Your task to perform on an android device: Open Chrome and go to the settings page Image 0: 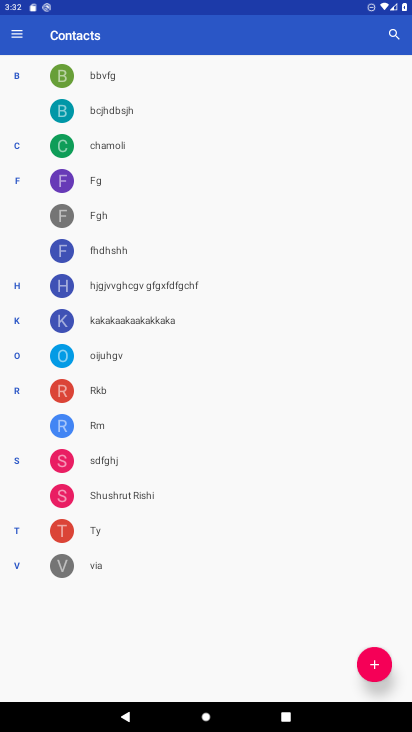
Step 0: press home button
Your task to perform on an android device: Open Chrome and go to the settings page Image 1: 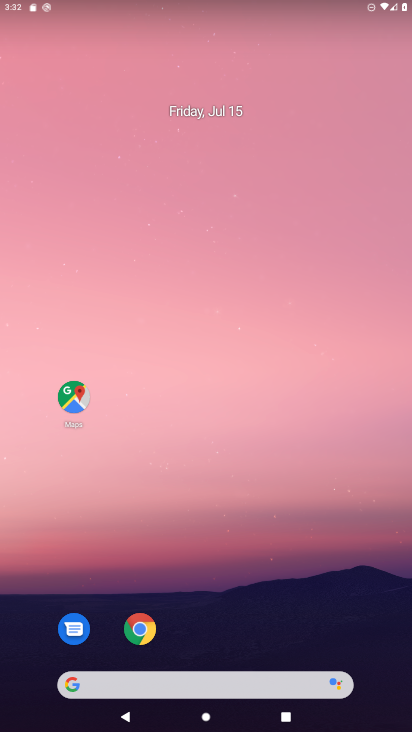
Step 1: drag from (301, 463) to (242, 0)
Your task to perform on an android device: Open Chrome and go to the settings page Image 2: 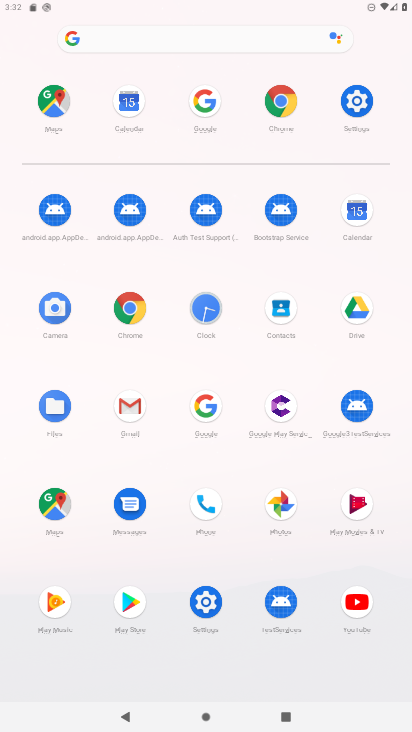
Step 2: click (295, 95)
Your task to perform on an android device: Open Chrome and go to the settings page Image 3: 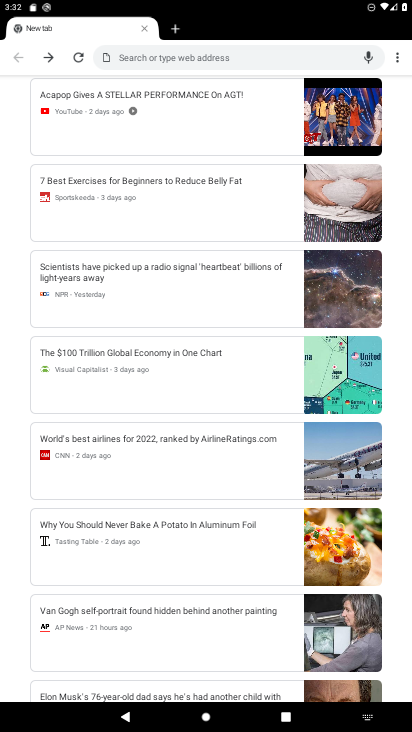
Step 3: task complete